Your task to perform on an android device: turn off javascript in the chrome app Image 0: 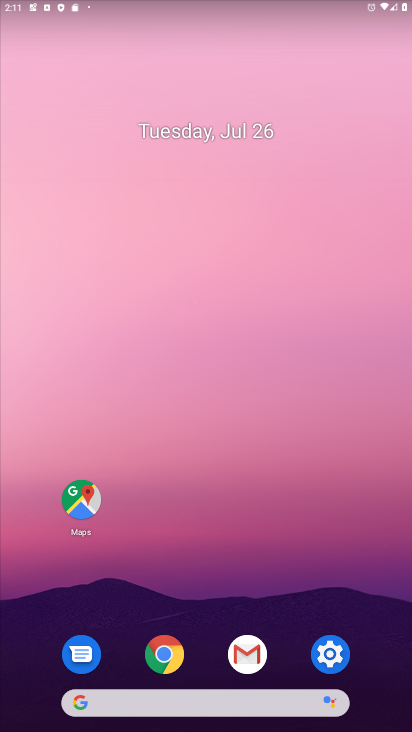
Step 0: click (166, 658)
Your task to perform on an android device: turn off javascript in the chrome app Image 1: 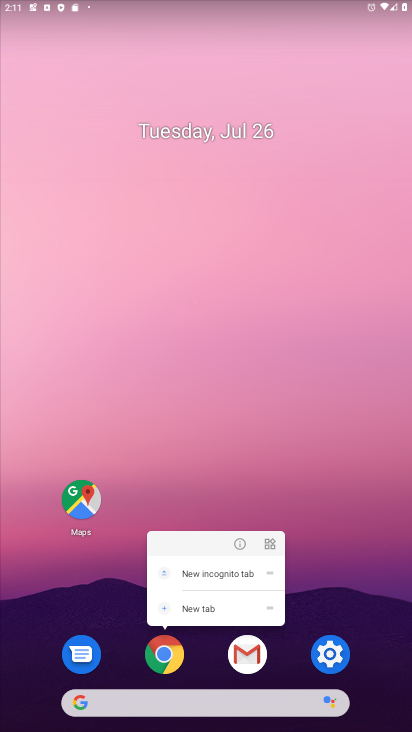
Step 1: click (165, 651)
Your task to perform on an android device: turn off javascript in the chrome app Image 2: 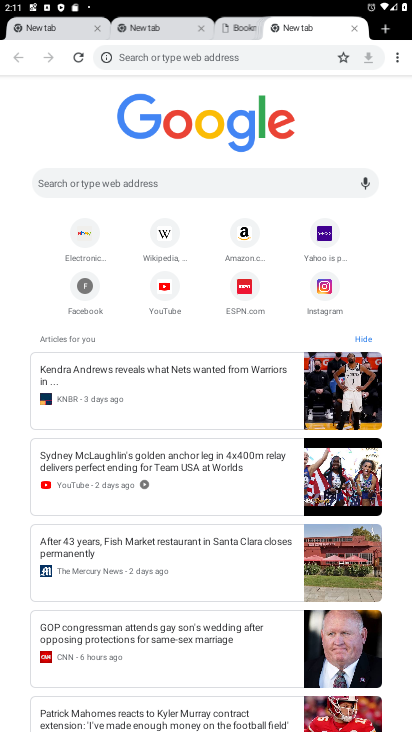
Step 2: click (392, 64)
Your task to perform on an android device: turn off javascript in the chrome app Image 3: 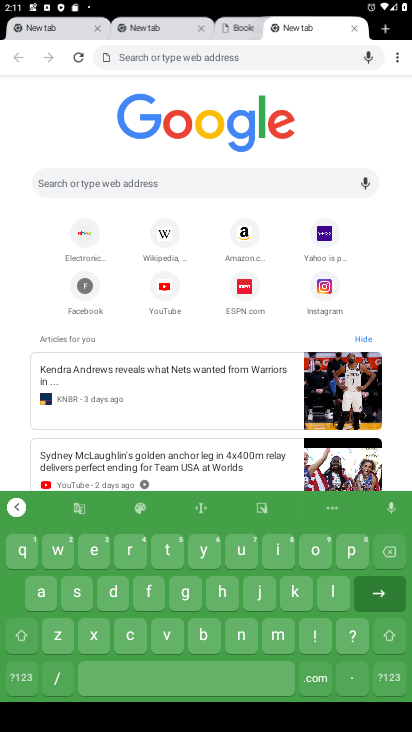
Step 3: click (395, 69)
Your task to perform on an android device: turn off javascript in the chrome app Image 4: 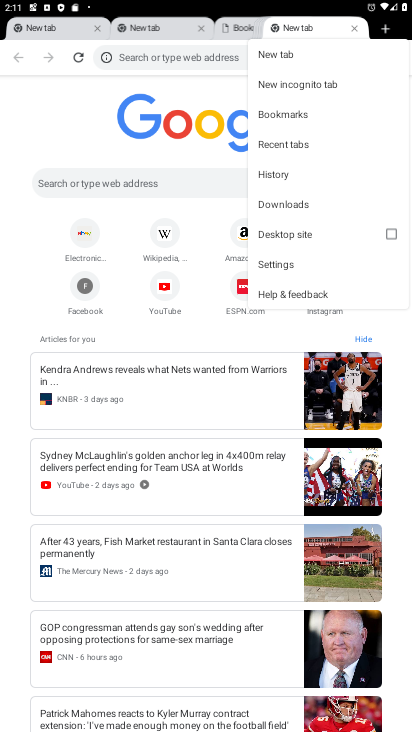
Step 4: click (264, 264)
Your task to perform on an android device: turn off javascript in the chrome app Image 5: 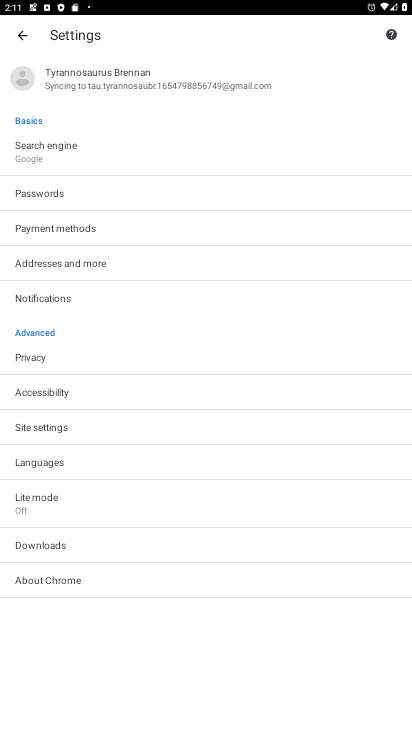
Step 5: click (53, 428)
Your task to perform on an android device: turn off javascript in the chrome app Image 6: 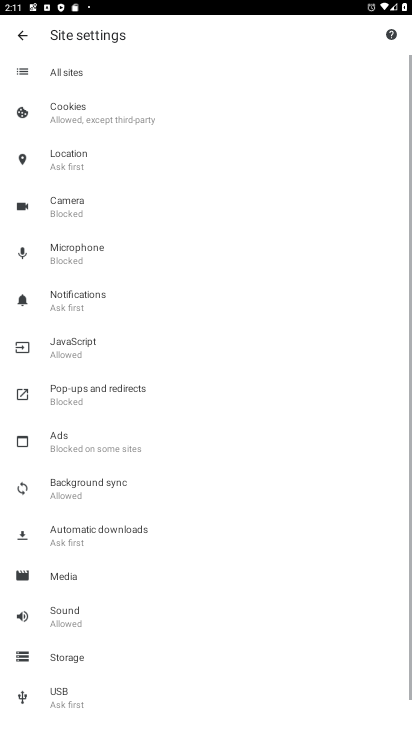
Step 6: click (87, 360)
Your task to perform on an android device: turn off javascript in the chrome app Image 7: 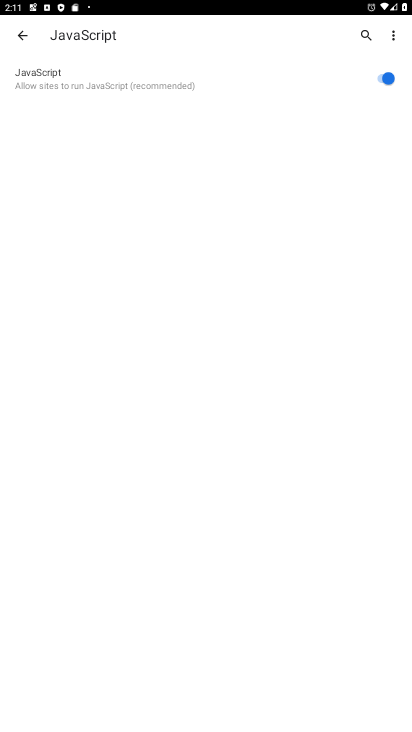
Step 7: click (364, 85)
Your task to perform on an android device: turn off javascript in the chrome app Image 8: 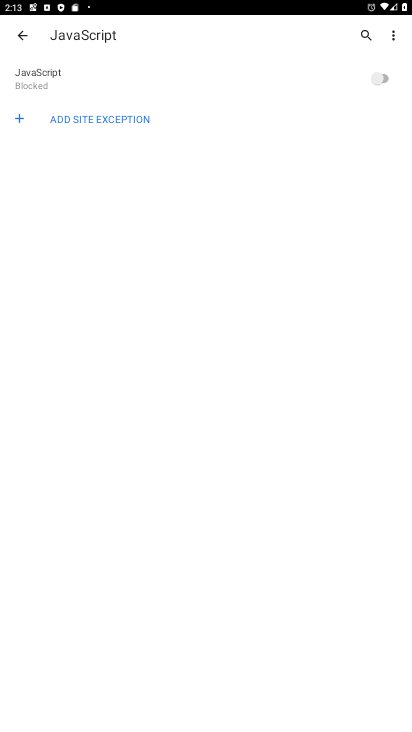
Step 8: task complete